Your task to perform on an android device: Turn off the flashlight Image 0: 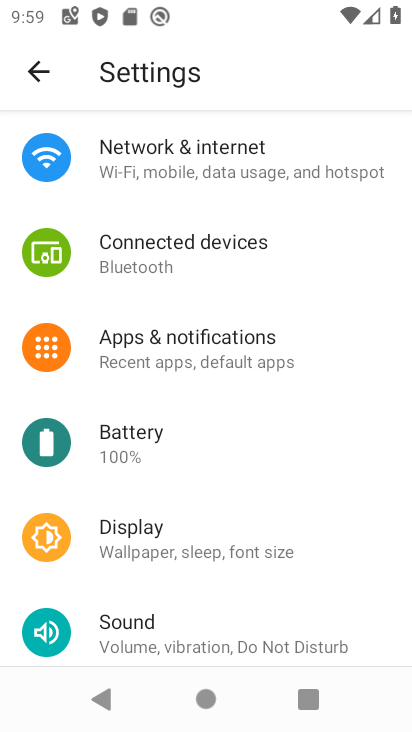
Step 0: press home button
Your task to perform on an android device: Turn off the flashlight Image 1: 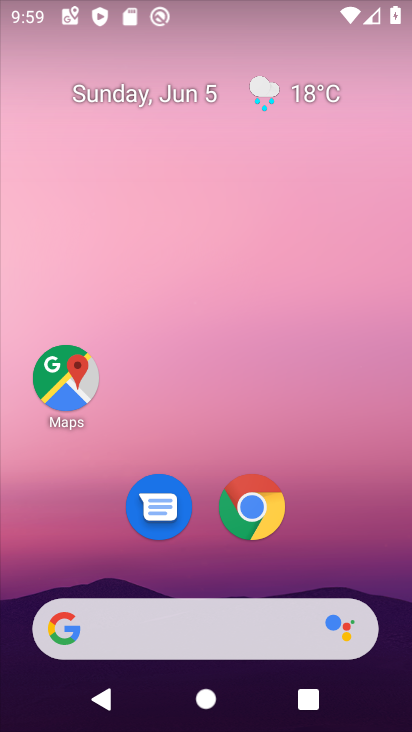
Step 1: drag from (213, 547) to (197, 21)
Your task to perform on an android device: Turn off the flashlight Image 2: 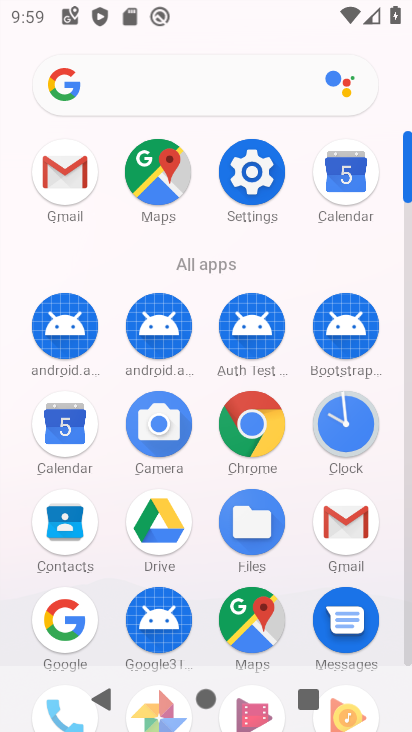
Step 2: click (252, 192)
Your task to perform on an android device: Turn off the flashlight Image 3: 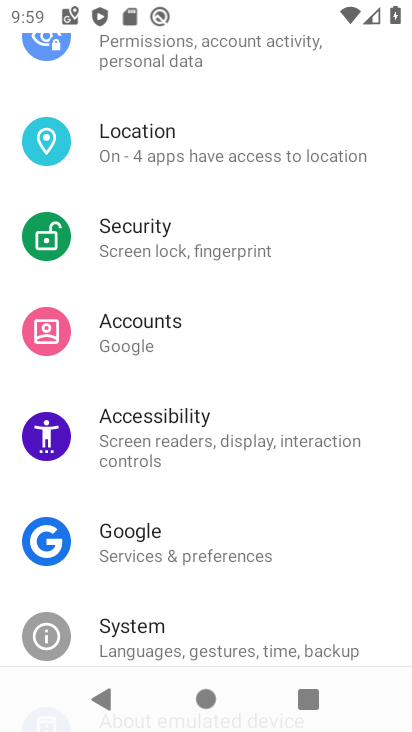
Step 3: drag from (184, 243) to (155, 544)
Your task to perform on an android device: Turn off the flashlight Image 4: 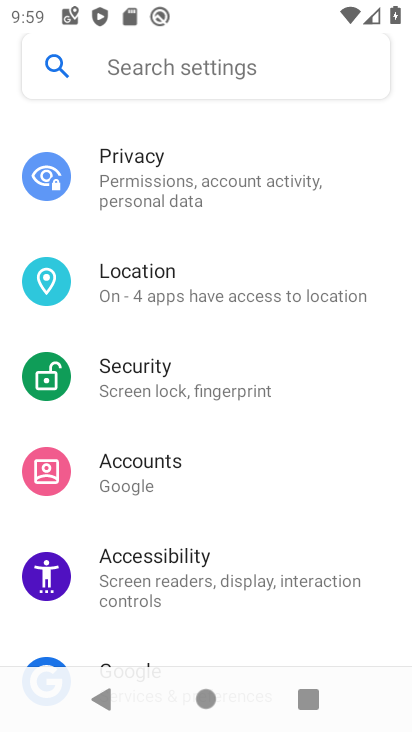
Step 4: drag from (204, 166) to (173, 443)
Your task to perform on an android device: Turn off the flashlight Image 5: 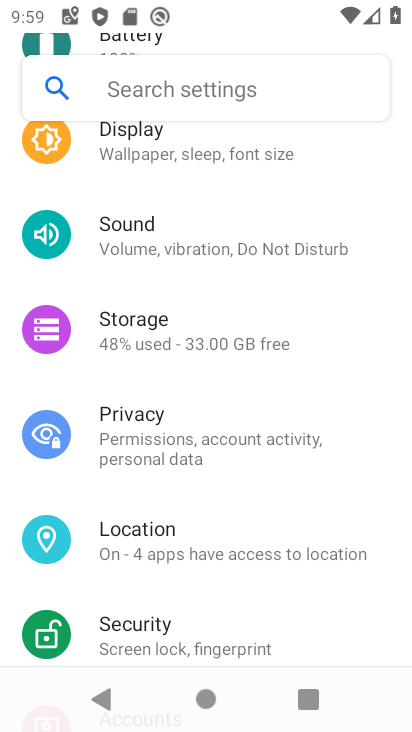
Step 5: click (208, 84)
Your task to perform on an android device: Turn off the flashlight Image 6: 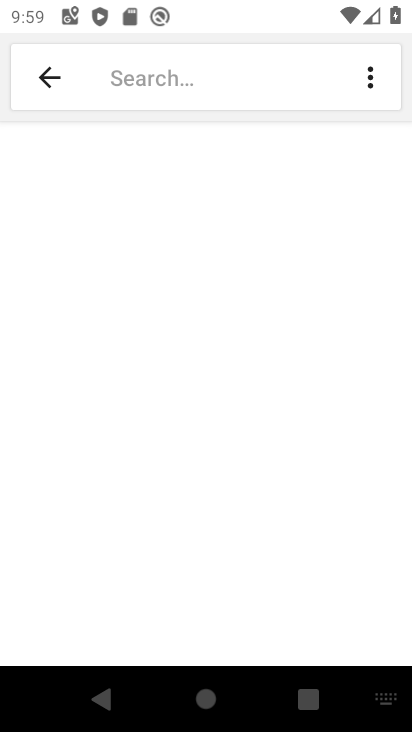
Step 6: type "flashlight"
Your task to perform on an android device: Turn off the flashlight Image 7: 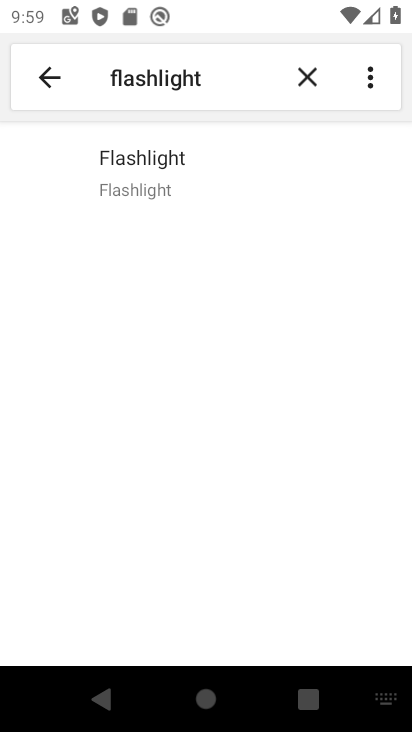
Step 7: click (166, 163)
Your task to perform on an android device: Turn off the flashlight Image 8: 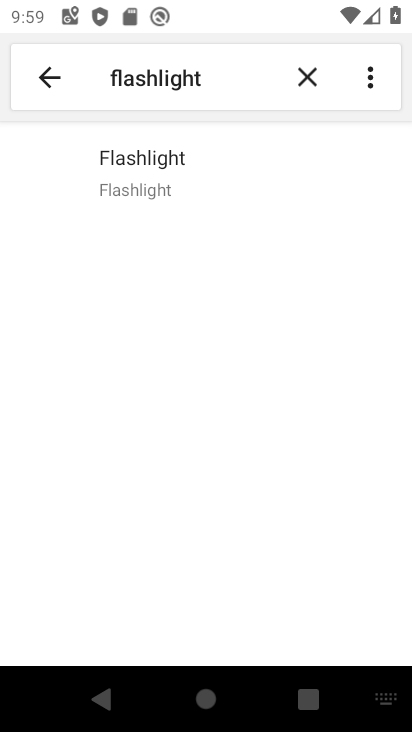
Step 8: click (184, 168)
Your task to perform on an android device: Turn off the flashlight Image 9: 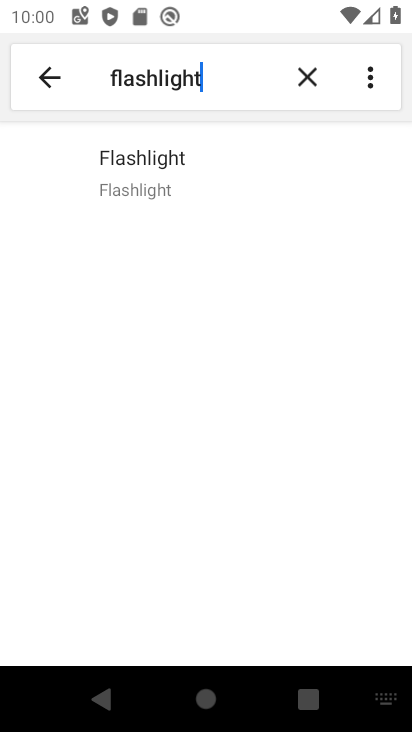
Step 9: click (183, 167)
Your task to perform on an android device: Turn off the flashlight Image 10: 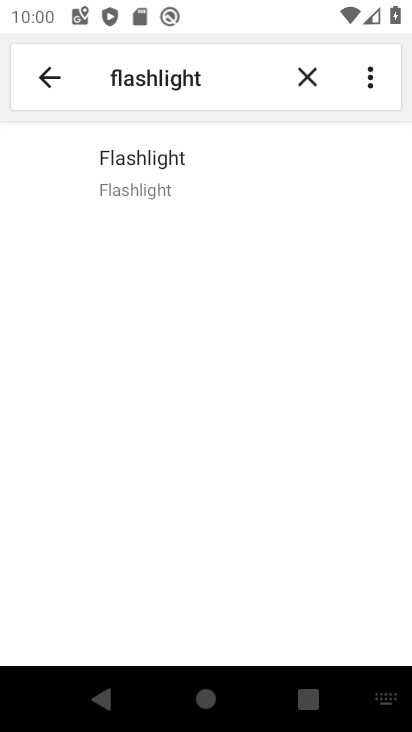
Step 10: task complete